Your task to perform on an android device: empty trash in the gmail app Image 0: 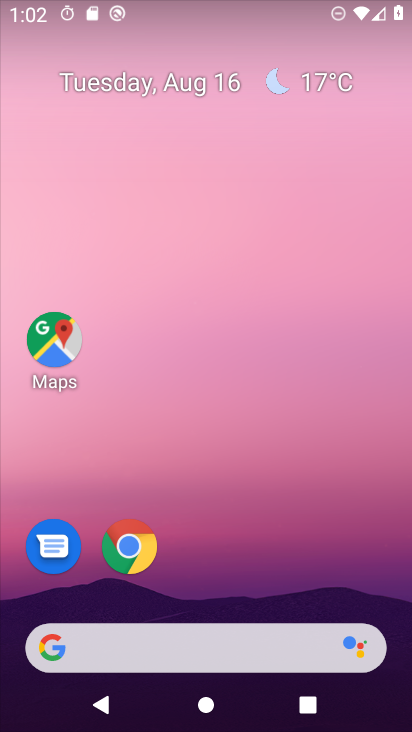
Step 0: drag from (232, 561) to (238, 111)
Your task to perform on an android device: empty trash in the gmail app Image 1: 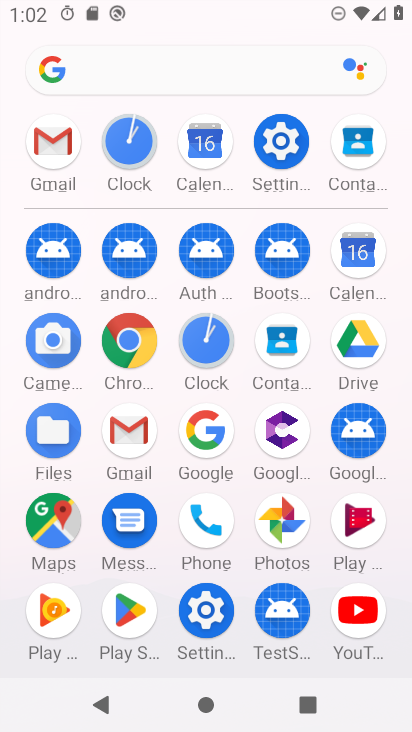
Step 1: click (128, 426)
Your task to perform on an android device: empty trash in the gmail app Image 2: 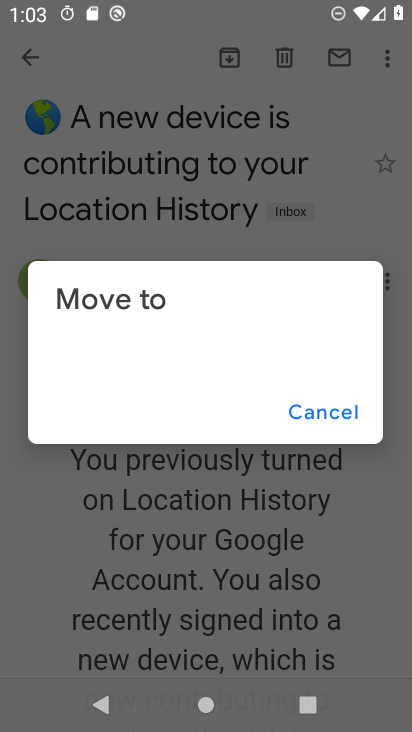
Step 2: press home button
Your task to perform on an android device: empty trash in the gmail app Image 3: 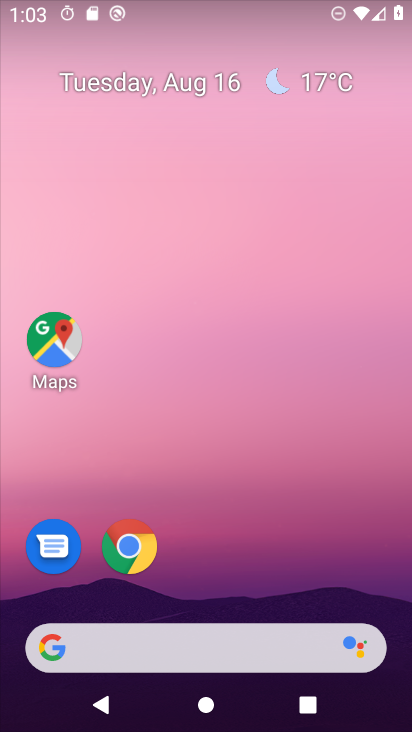
Step 3: drag from (234, 591) to (237, 191)
Your task to perform on an android device: empty trash in the gmail app Image 4: 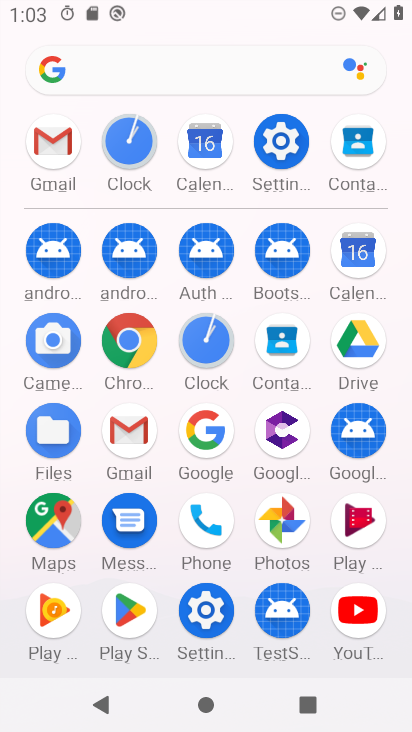
Step 4: click (128, 433)
Your task to perform on an android device: empty trash in the gmail app Image 5: 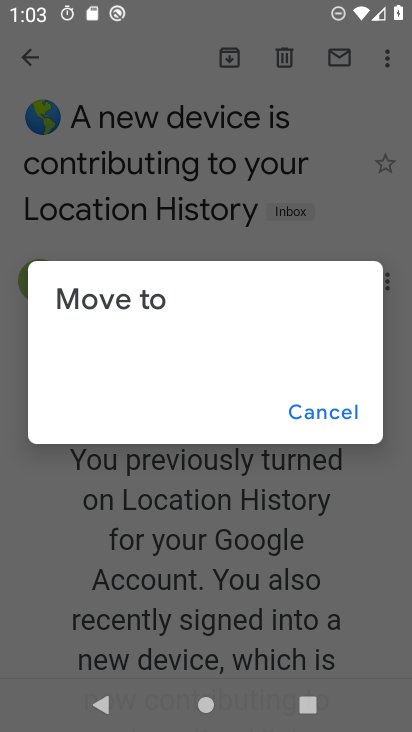
Step 5: click (326, 412)
Your task to perform on an android device: empty trash in the gmail app Image 6: 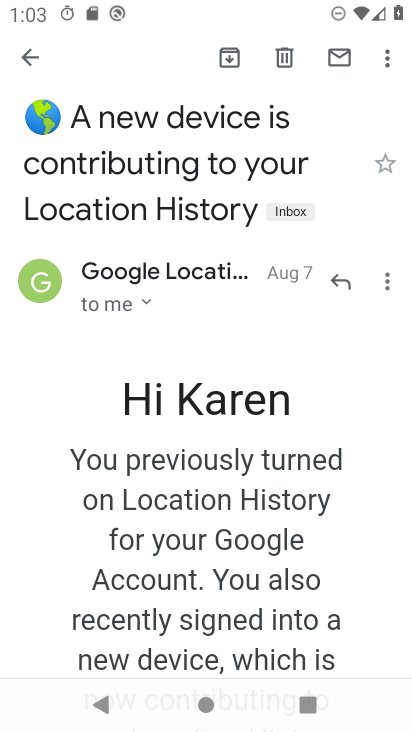
Step 6: click (30, 55)
Your task to perform on an android device: empty trash in the gmail app Image 7: 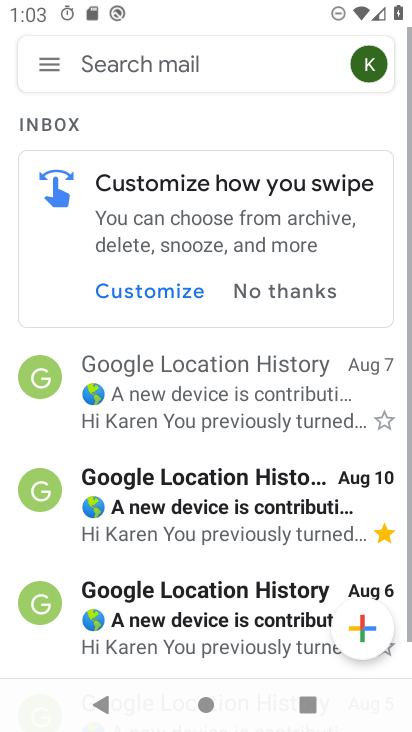
Step 7: click (50, 59)
Your task to perform on an android device: empty trash in the gmail app Image 8: 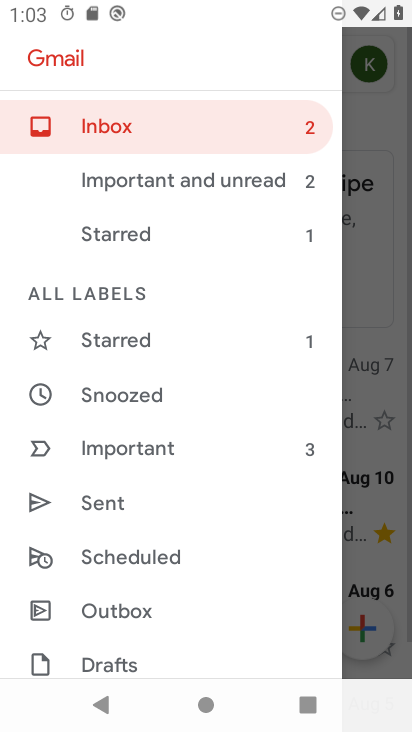
Step 8: drag from (98, 631) to (108, 299)
Your task to perform on an android device: empty trash in the gmail app Image 9: 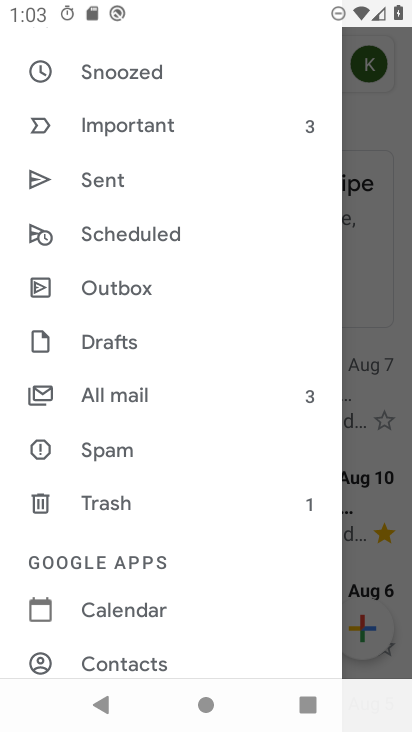
Step 9: click (114, 502)
Your task to perform on an android device: empty trash in the gmail app Image 10: 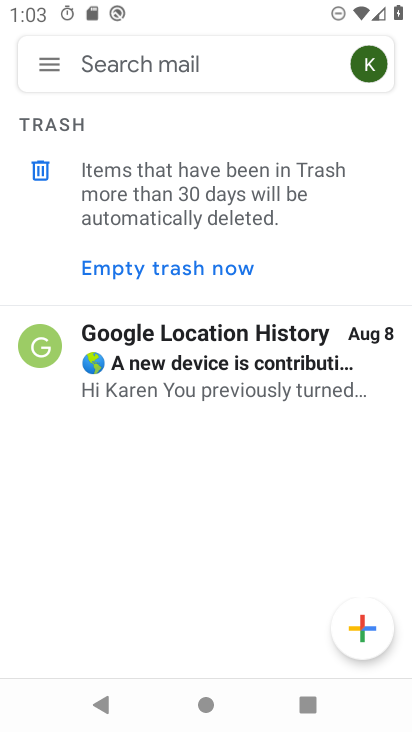
Step 10: task complete